Your task to perform on an android device: Show me productivity apps on the Play Store Image 0: 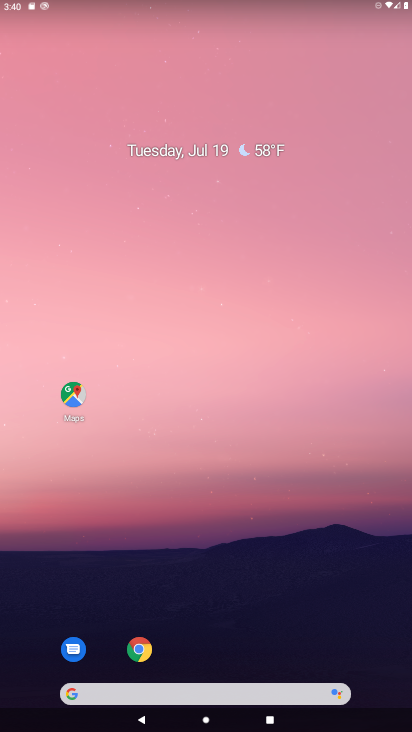
Step 0: click (279, 193)
Your task to perform on an android device: Show me productivity apps on the Play Store Image 1: 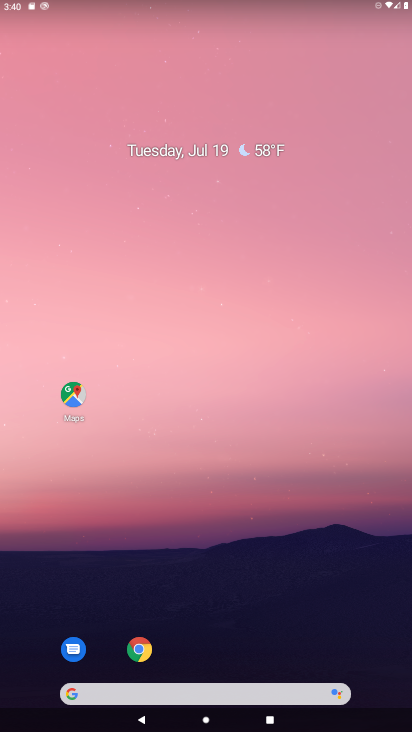
Step 1: drag from (232, 232) to (232, 153)
Your task to perform on an android device: Show me productivity apps on the Play Store Image 2: 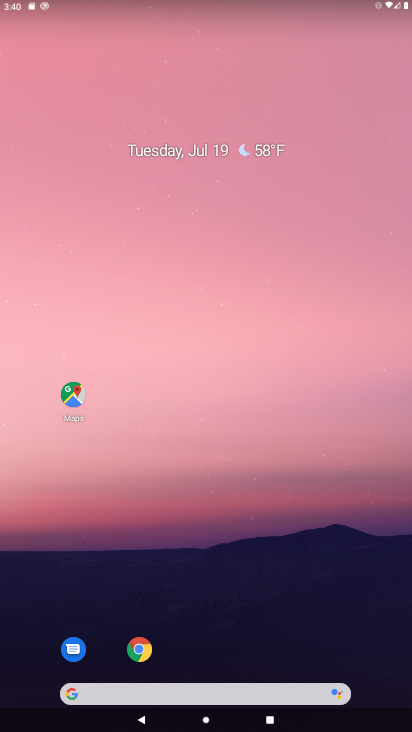
Step 2: click (235, 646)
Your task to perform on an android device: Show me productivity apps on the Play Store Image 3: 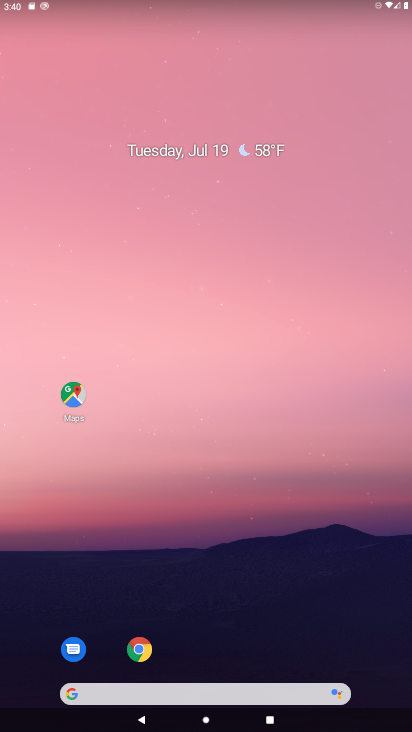
Step 3: click (235, 184)
Your task to perform on an android device: Show me productivity apps on the Play Store Image 4: 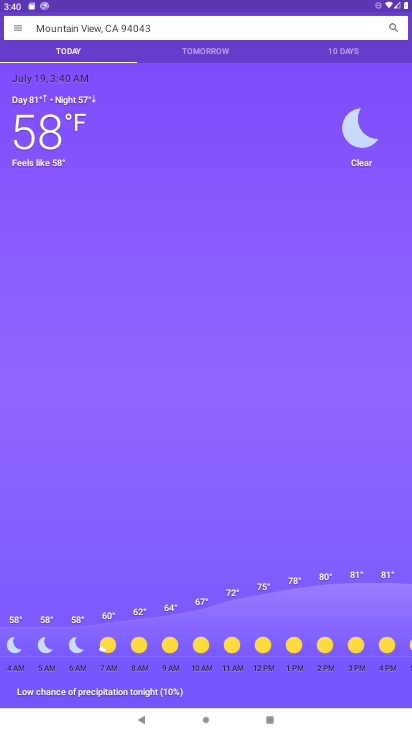
Step 4: press home button
Your task to perform on an android device: Show me productivity apps on the Play Store Image 5: 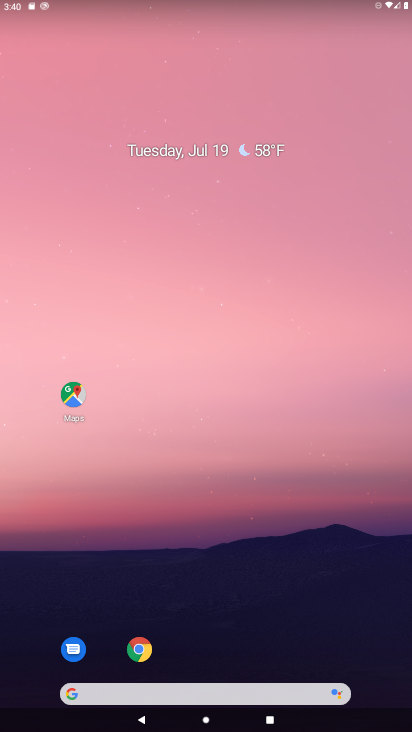
Step 5: drag from (235, 530) to (235, 258)
Your task to perform on an android device: Show me productivity apps on the Play Store Image 6: 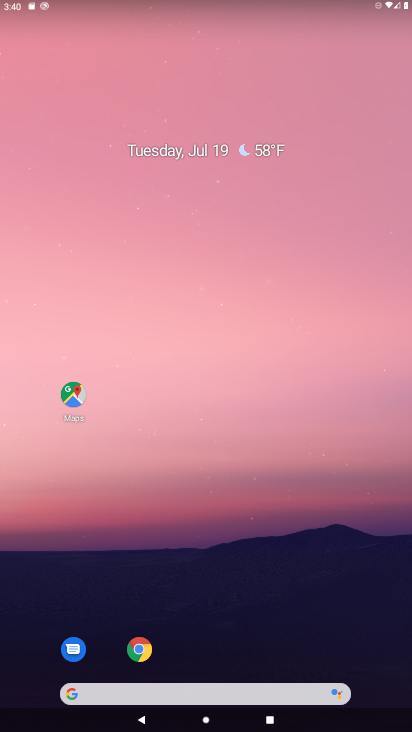
Step 6: drag from (225, 638) to (225, 600)
Your task to perform on an android device: Show me productivity apps on the Play Store Image 7: 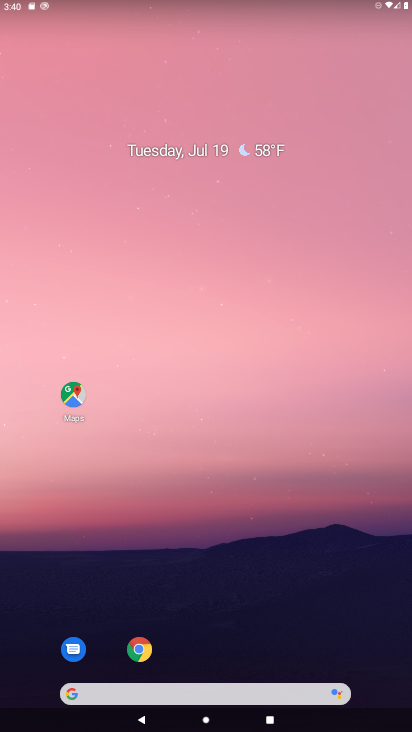
Step 7: click (227, 157)
Your task to perform on an android device: Show me productivity apps on the Play Store Image 8: 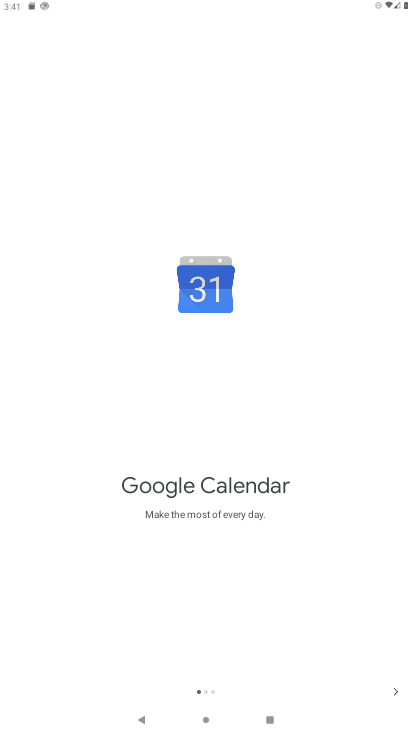
Step 8: press home button
Your task to perform on an android device: Show me productivity apps on the Play Store Image 9: 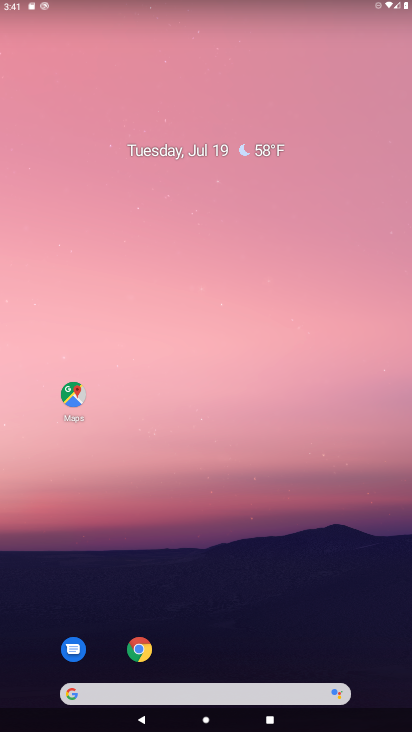
Step 9: click (234, 724)
Your task to perform on an android device: Show me productivity apps on the Play Store Image 10: 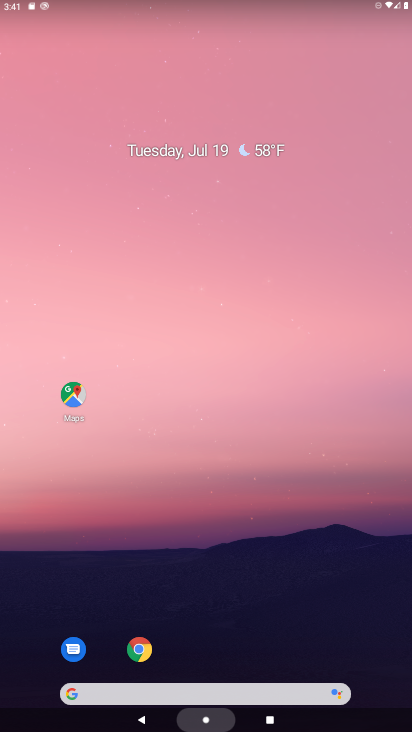
Step 10: drag from (234, 454) to (225, 196)
Your task to perform on an android device: Show me productivity apps on the Play Store Image 11: 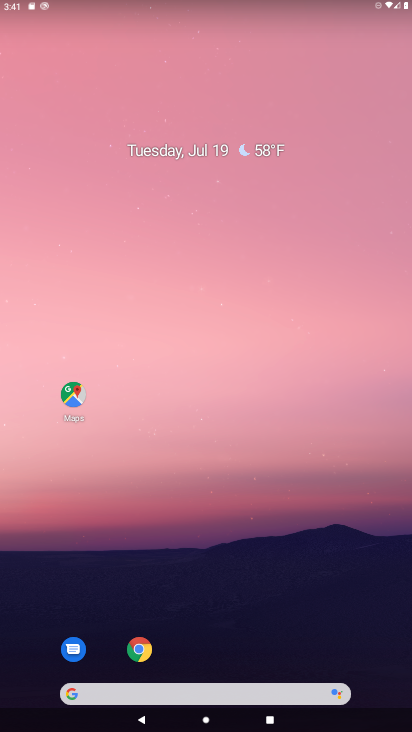
Step 11: click (223, 607)
Your task to perform on an android device: Show me productivity apps on the Play Store Image 12: 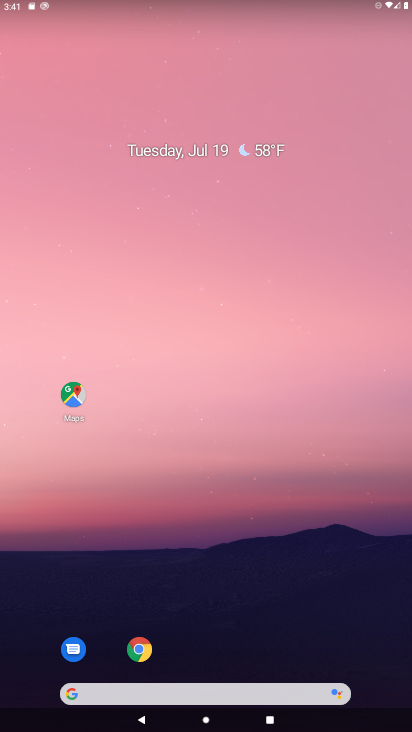
Step 12: click (226, 108)
Your task to perform on an android device: Show me productivity apps on the Play Store Image 13: 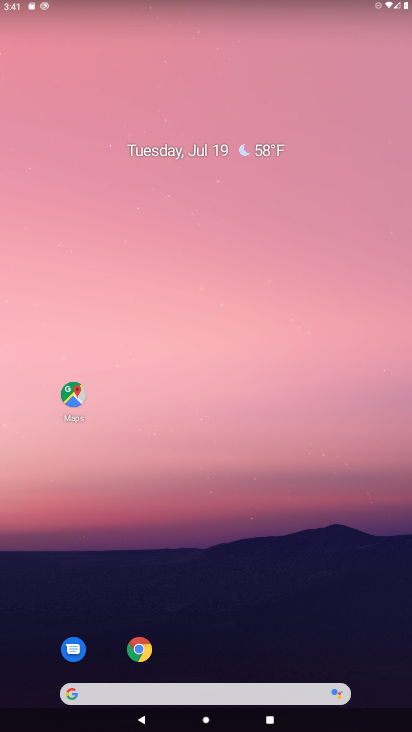
Step 13: drag from (224, 725) to (230, 72)
Your task to perform on an android device: Show me productivity apps on the Play Store Image 14: 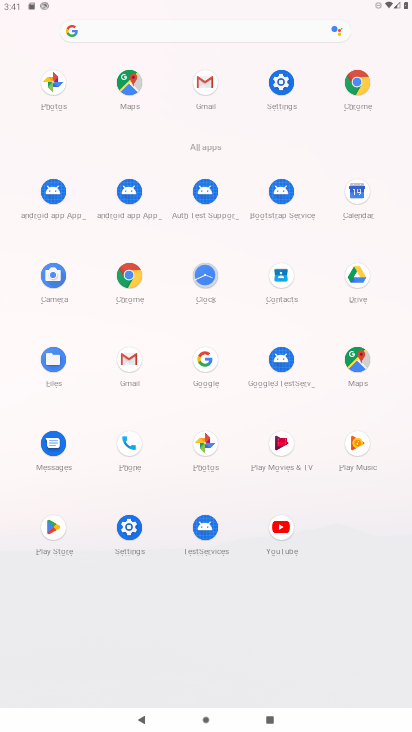
Step 14: click (50, 525)
Your task to perform on an android device: Show me productivity apps on the Play Store Image 15: 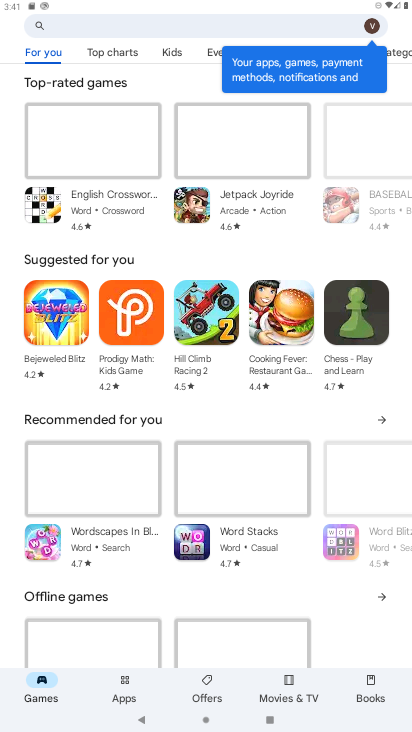
Step 15: click (129, 684)
Your task to perform on an android device: Show me productivity apps on the Play Store Image 16: 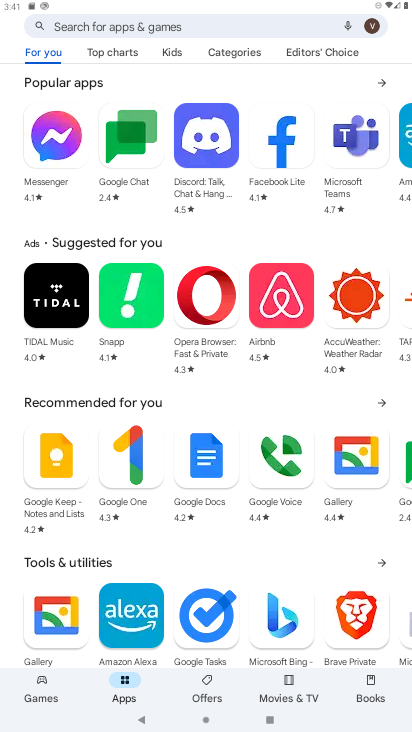
Step 16: click (243, 48)
Your task to perform on an android device: Show me productivity apps on the Play Store Image 17: 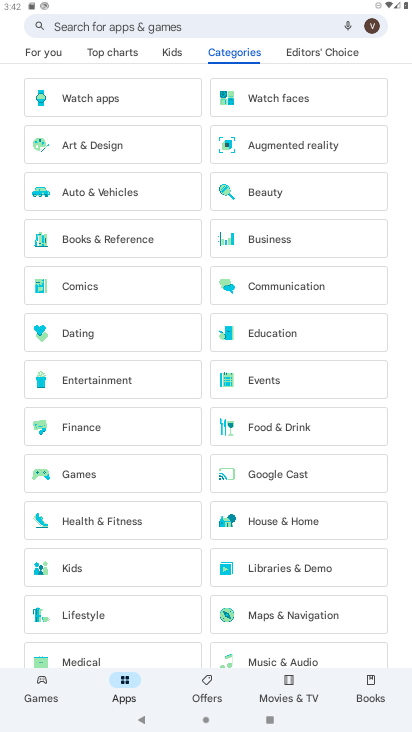
Step 17: drag from (222, 616) to (222, 321)
Your task to perform on an android device: Show me productivity apps on the Play Store Image 18: 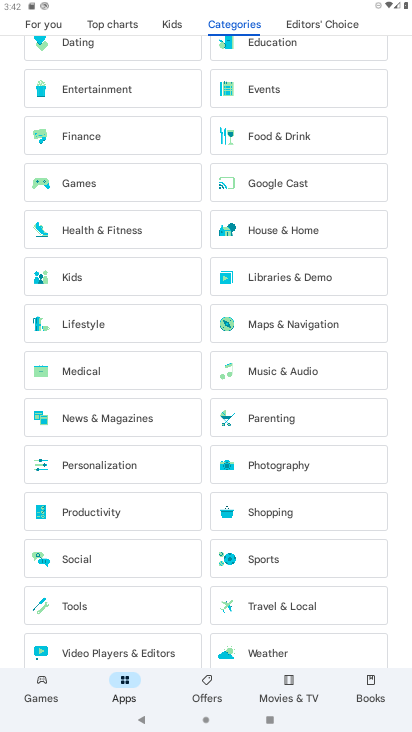
Step 18: click (123, 510)
Your task to perform on an android device: Show me productivity apps on the Play Store Image 19: 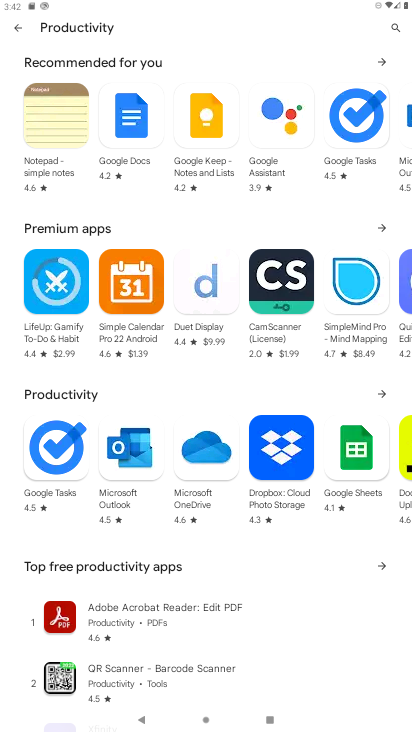
Step 19: task complete